Your task to perform on an android device: turn vacation reply on in the gmail app Image 0: 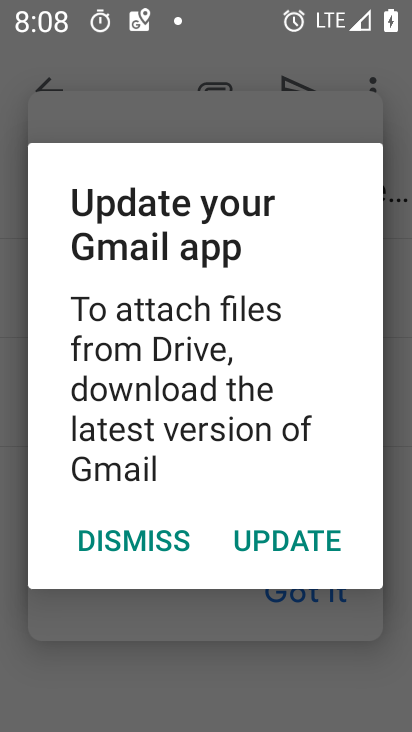
Step 0: press home button
Your task to perform on an android device: turn vacation reply on in the gmail app Image 1: 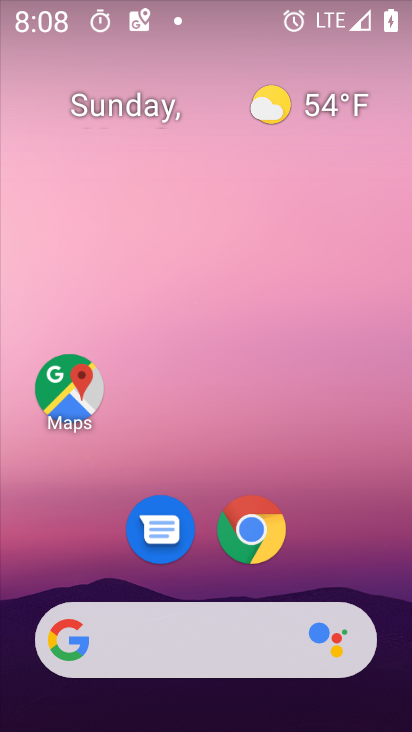
Step 1: drag from (236, 578) to (260, 90)
Your task to perform on an android device: turn vacation reply on in the gmail app Image 2: 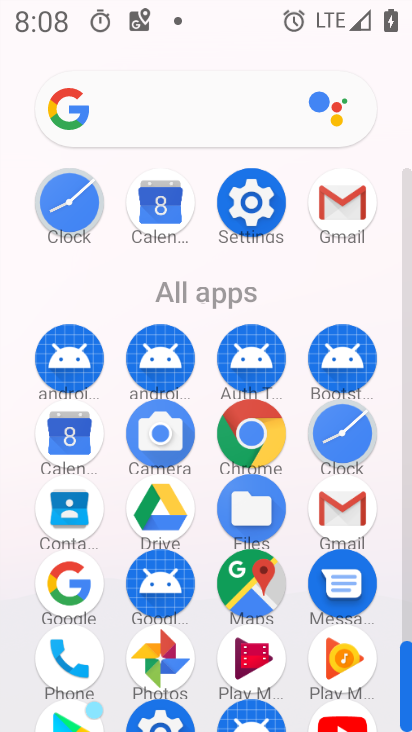
Step 2: click (328, 497)
Your task to perform on an android device: turn vacation reply on in the gmail app Image 3: 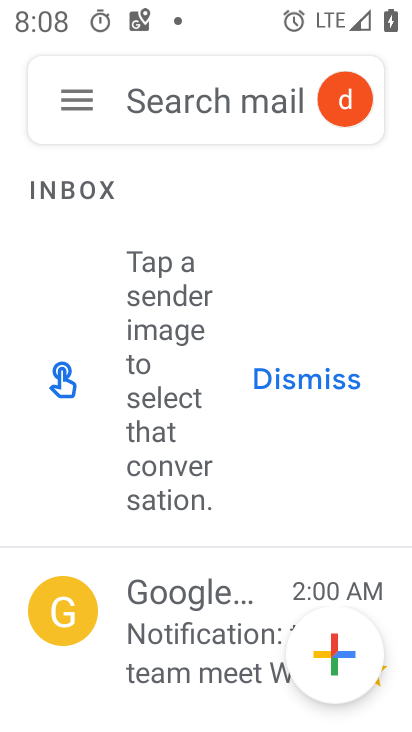
Step 3: click (75, 113)
Your task to perform on an android device: turn vacation reply on in the gmail app Image 4: 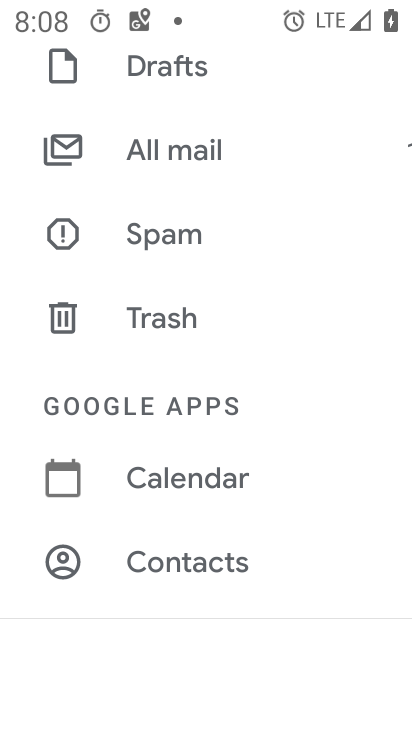
Step 4: drag from (160, 546) to (236, 246)
Your task to perform on an android device: turn vacation reply on in the gmail app Image 5: 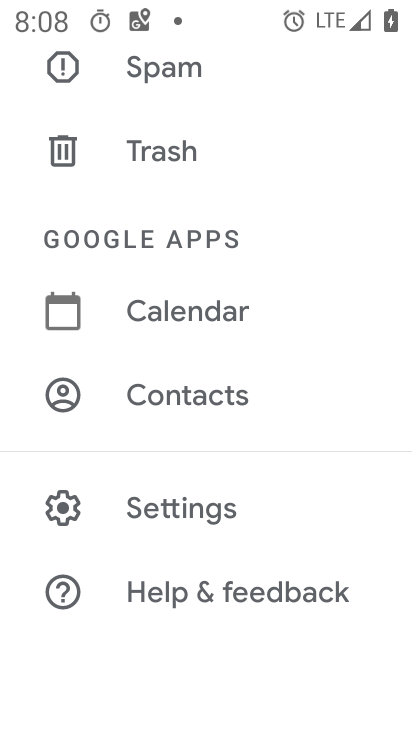
Step 5: click (190, 498)
Your task to perform on an android device: turn vacation reply on in the gmail app Image 6: 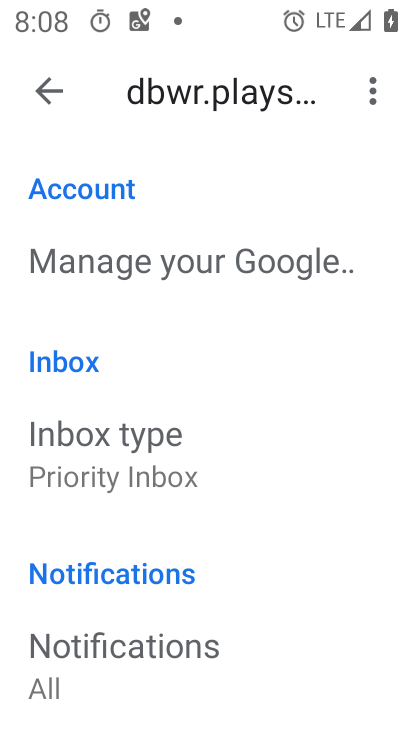
Step 6: drag from (125, 531) to (175, 202)
Your task to perform on an android device: turn vacation reply on in the gmail app Image 7: 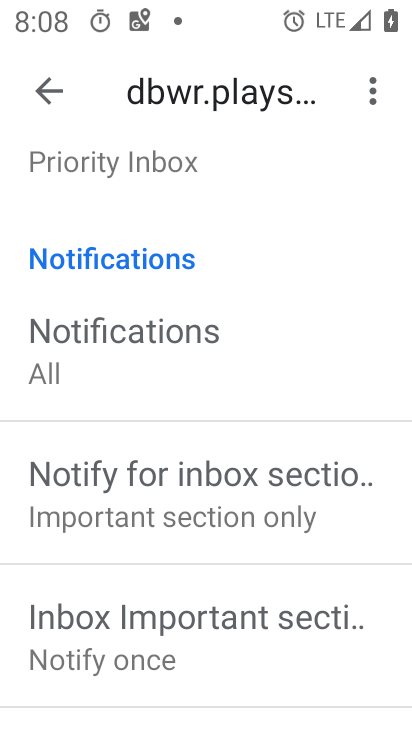
Step 7: drag from (113, 508) to (173, 232)
Your task to perform on an android device: turn vacation reply on in the gmail app Image 8: 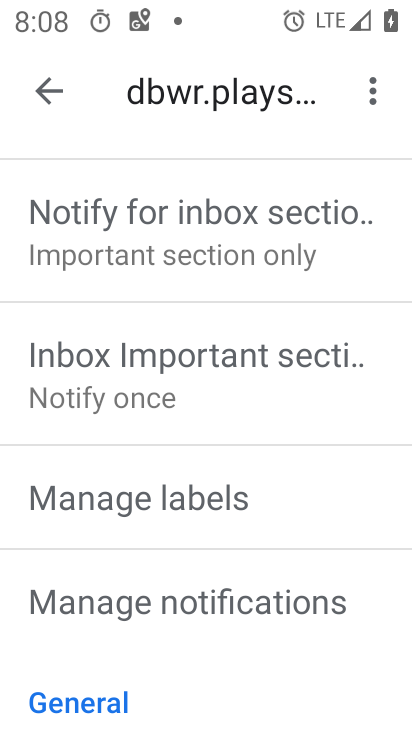
Step 8: drag from (71, 573) to (159, 253)
Your task to perform on an android device: turn vacation reply on in the gmail app Image 9: 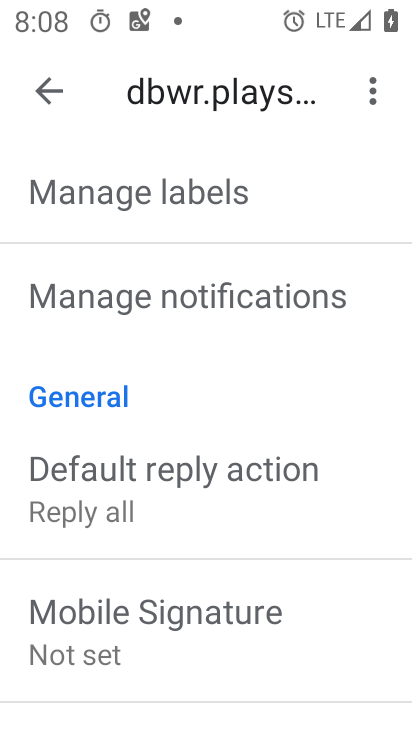
Step 9: drag from (106, 636) to (166, 368)
Your task to perform on an android device: turn vacation reply on in the gmail app Image 10: 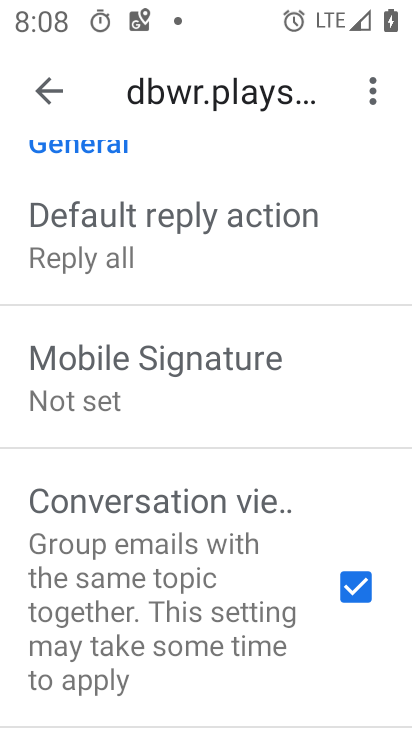
Step 10: drag from (76, 571) to (165, 264)
Your task to perform on an android device: turn vacation reply on in the gmail app Image 11: 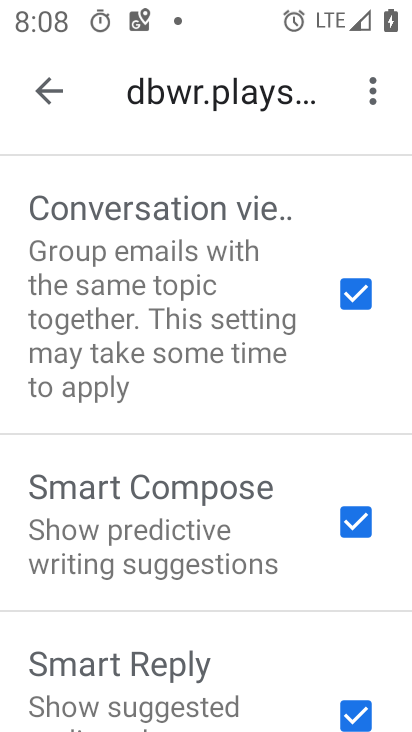
Step 11: drag from (126, 542) to (199, 199)
Your task to perform on an android device: turn vacation reply on in the gmail app Image 12: 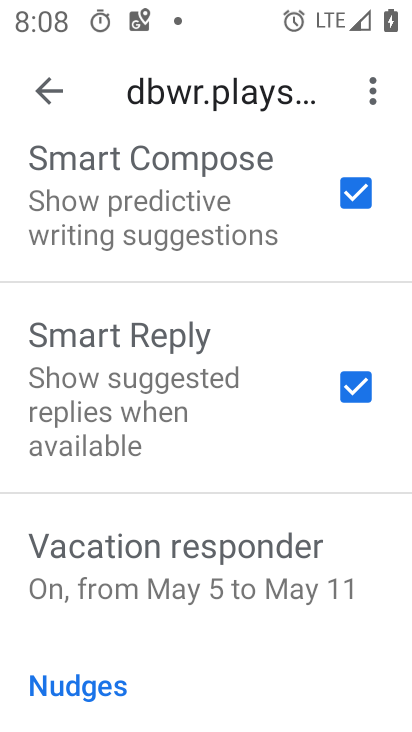
Step 12: drag from (152, 607) to (153, 526)
Your task to perform on an android device: turn vacation reply on in the gmail app Image 13: 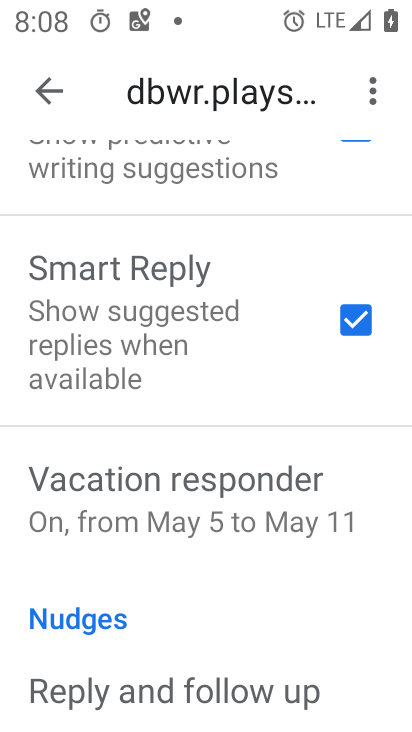
Step 13: click (114, 522)
Your task to perform on an android device: turn vacation reply on in the gmail app Image 14: 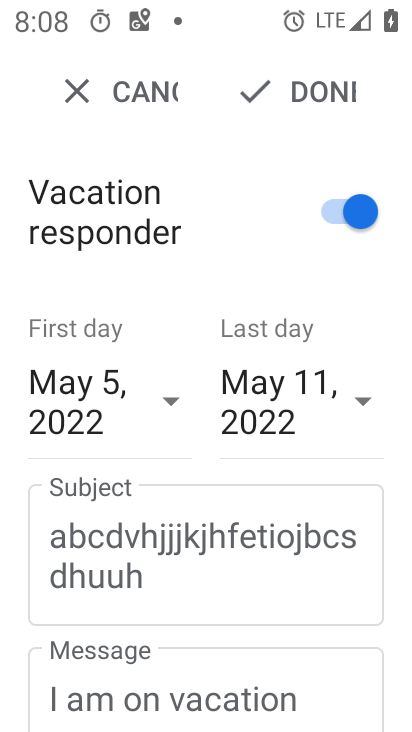
Step 14: task complete